Your task to perform on an android device: Open the web browser Image 0: 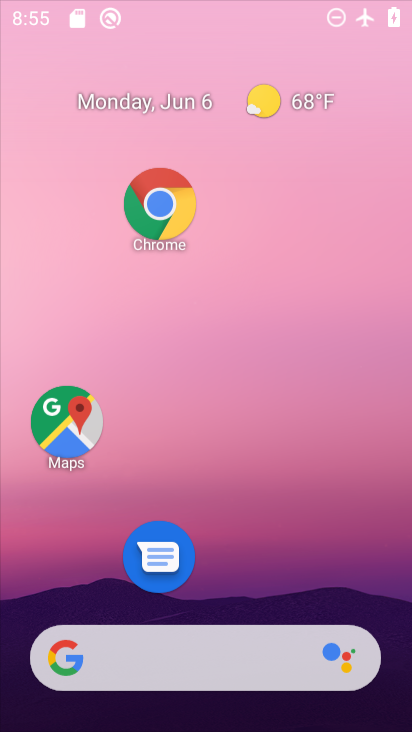
Step 0: press back button
Your task to perform on an android device: Open the web browser Image 1: 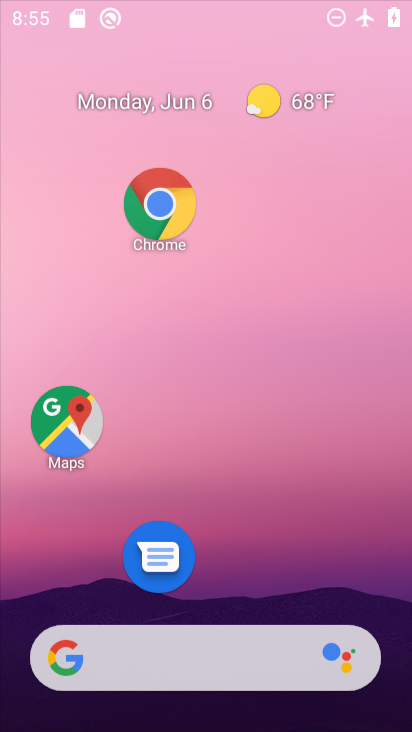
Step 1: click (175, 240)
Your task to perform on an android device: Open the web browser Image 2: 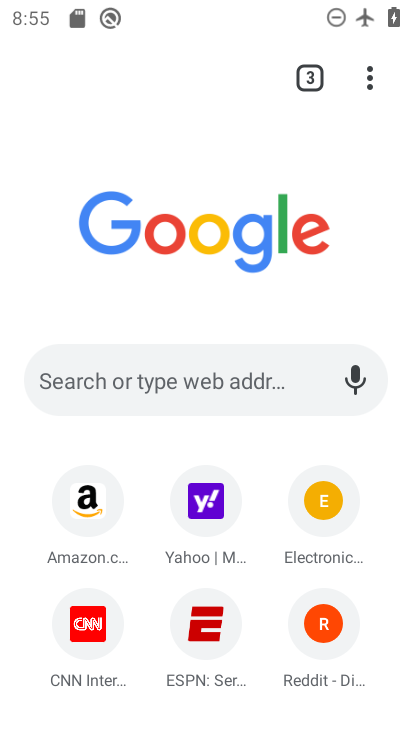
Step 2: press back button
Your task to perform on an android device: Open the web browser Image 3: 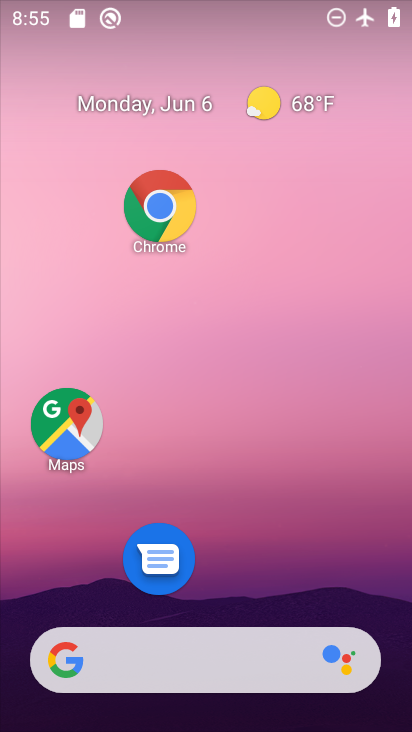
Step 3: drag from (291, 693) to (212, 197)
Your task to perform on an android device: Open the web browser Image 4: 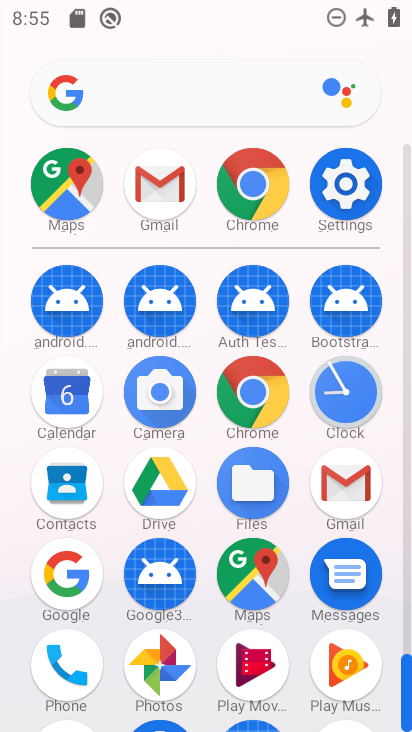
Step 4: click (358, 195)
Your task to perform on an android device: Open the web browser Image 5: 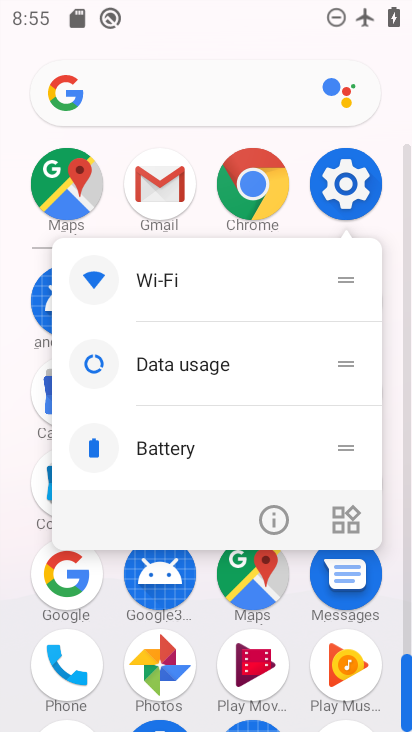
Step 5: click (218, 292)
Your task to perform on an android device: Open the web browser Image 6: 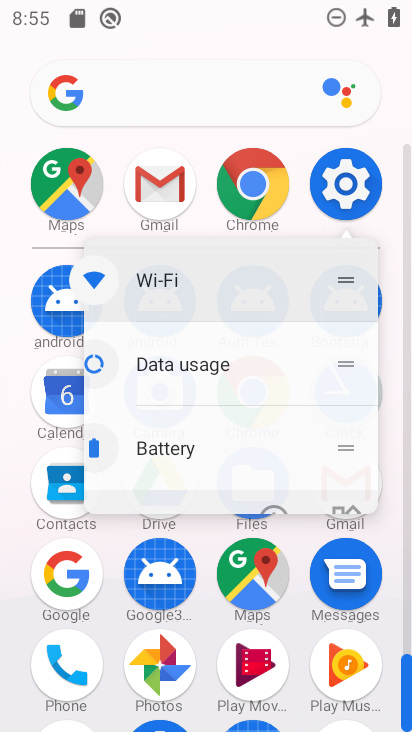
Step 6: click (216, 289)
Your task to perform on an android device: Open the web browser Image 7: 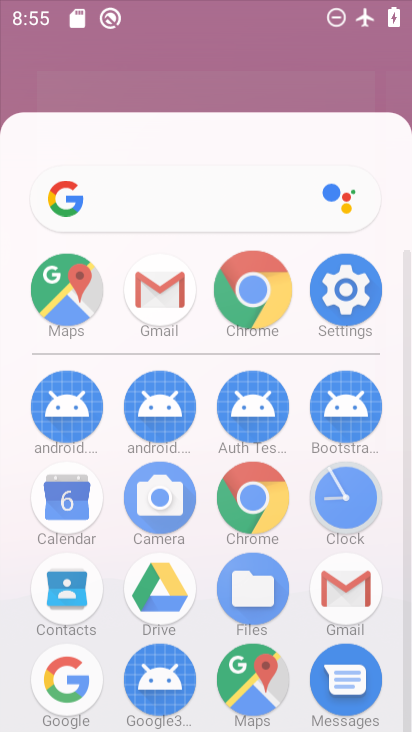
Step 7: click (216, 288)
Your task to perform on an android device: Open the web browser Image 8: 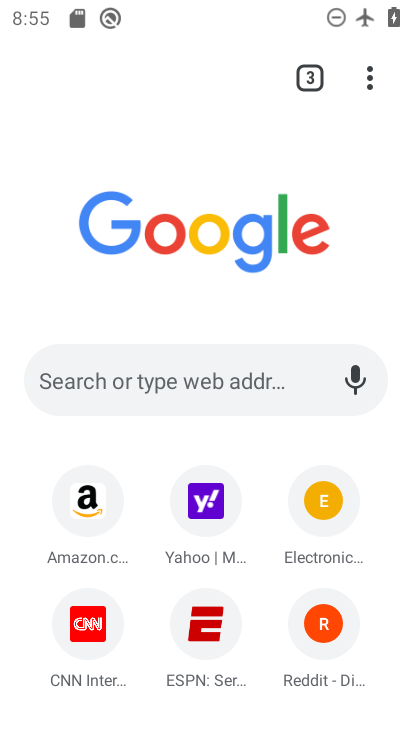
Step 8: drag from (369, 84) to (84, 154)
Your task to perform on an android device: Open the web browser Image 9: 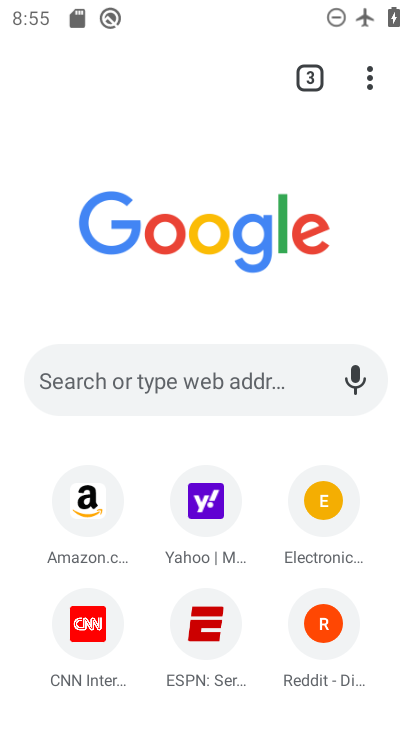
Step 9: click (83, 154)
Your task to perform on an android device: Open the web browser Image 10: 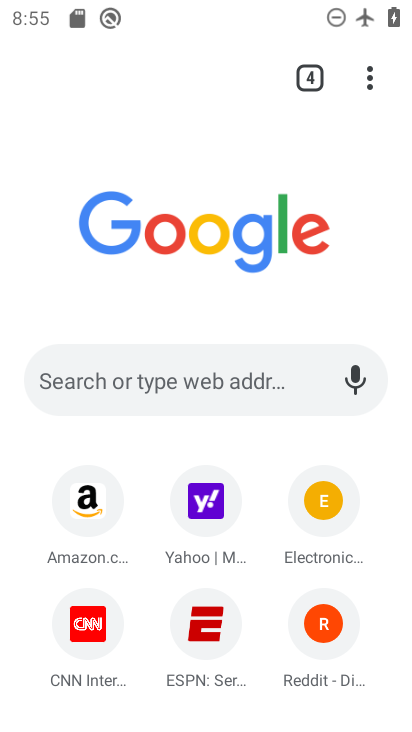
Step 10: click (82, 155)
Your task to perform on an android device: Open the web browser Image 11: 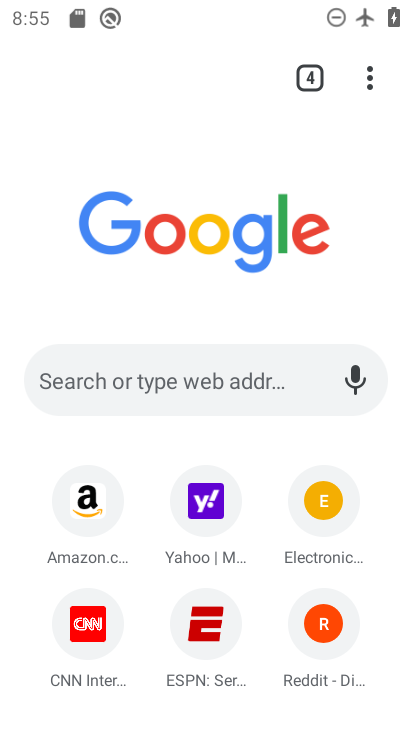
Step 11: task complete